Your task to perform on an android device: turn pop-ups off in chrome Image 0: 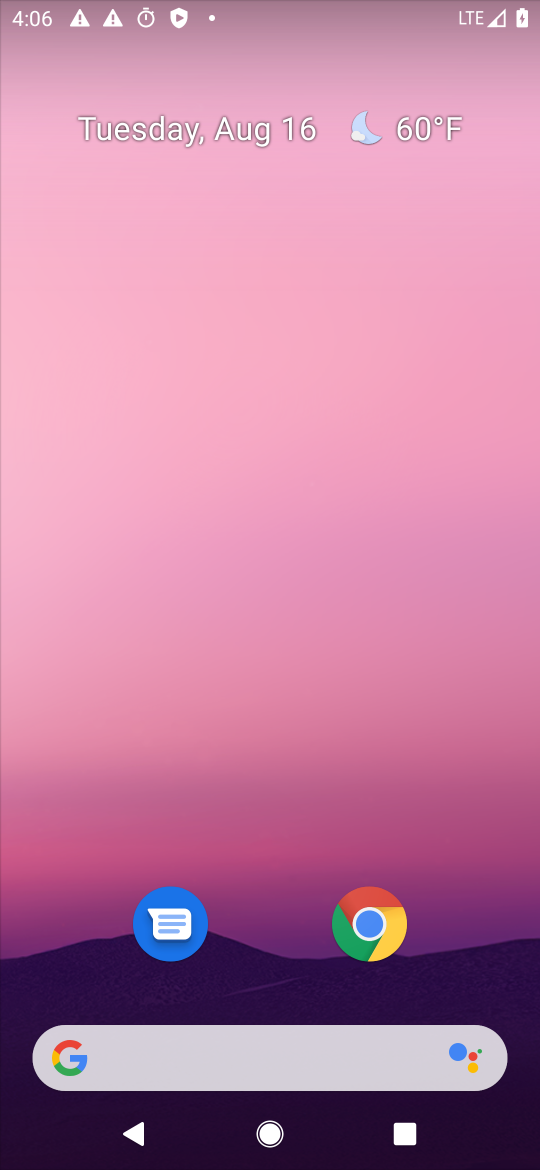
Step 0: click (379, 944)
Your task to perform on an android device: turn pop-ups off in chrome Image 1: 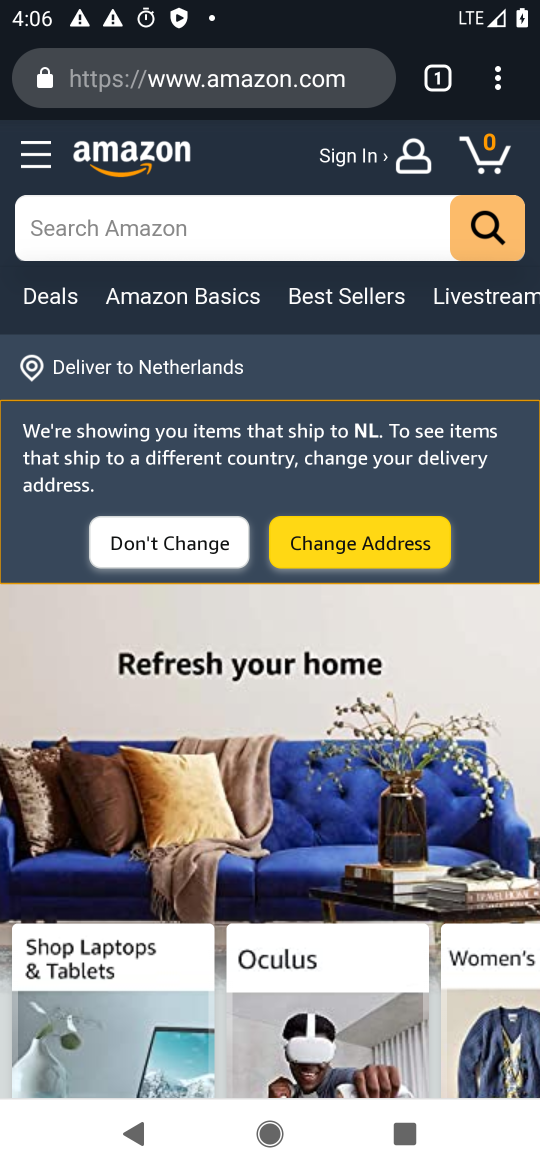
Step 1: click (514, 77)
Your task to perform on an android device: turn pop-ups off in chrome Image 2: 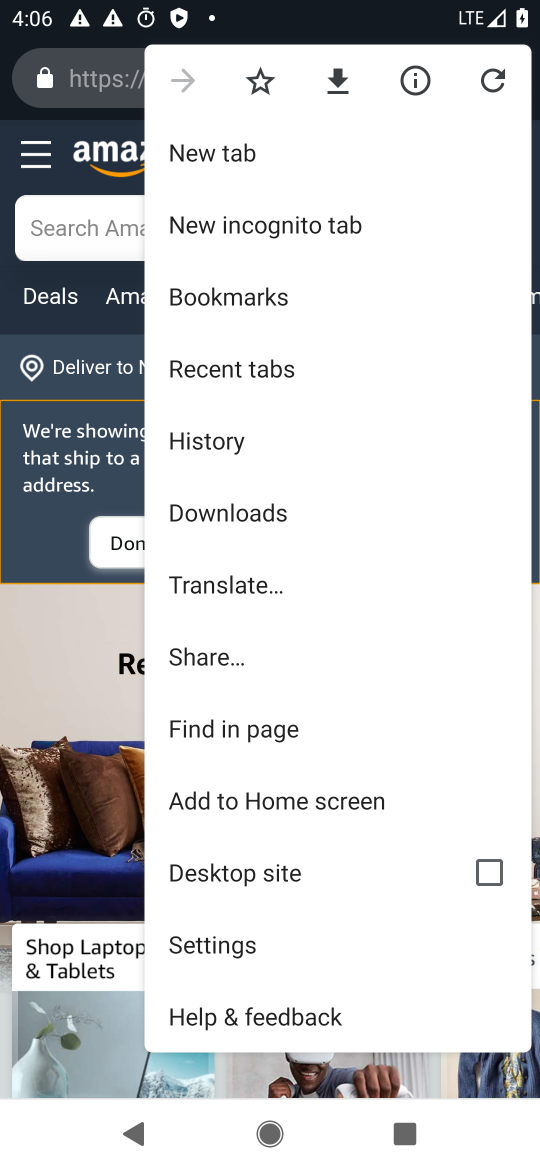
Step 2: click (276, 956)
Your task to perform on an android device: turn pop-ups off in chrome Image 3: 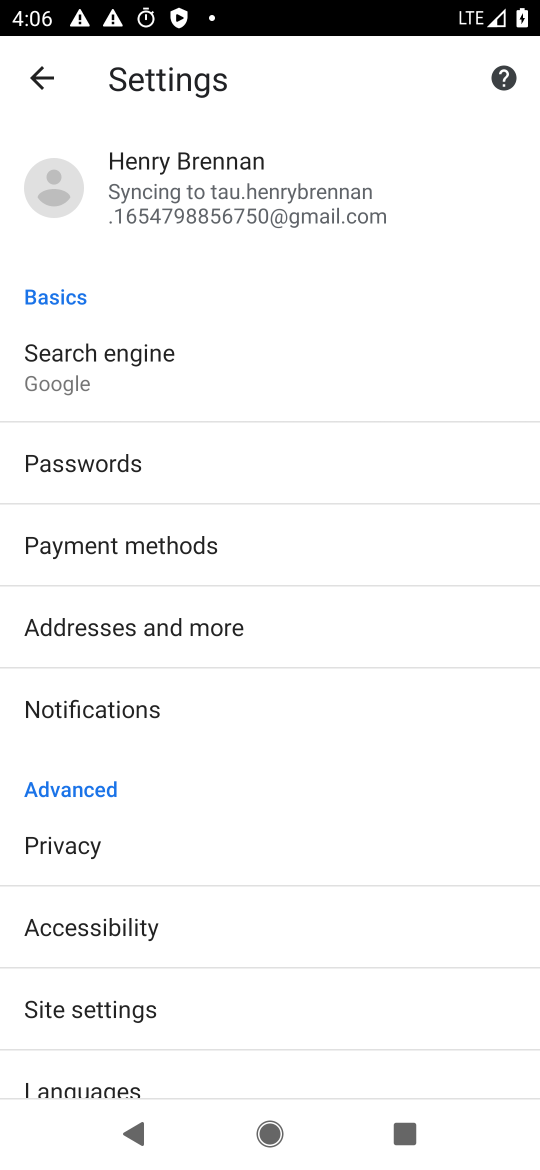
Step 3: click (134, 1022)
Your task to perform on an android device: turn pop-ups off in chrome Image 4: 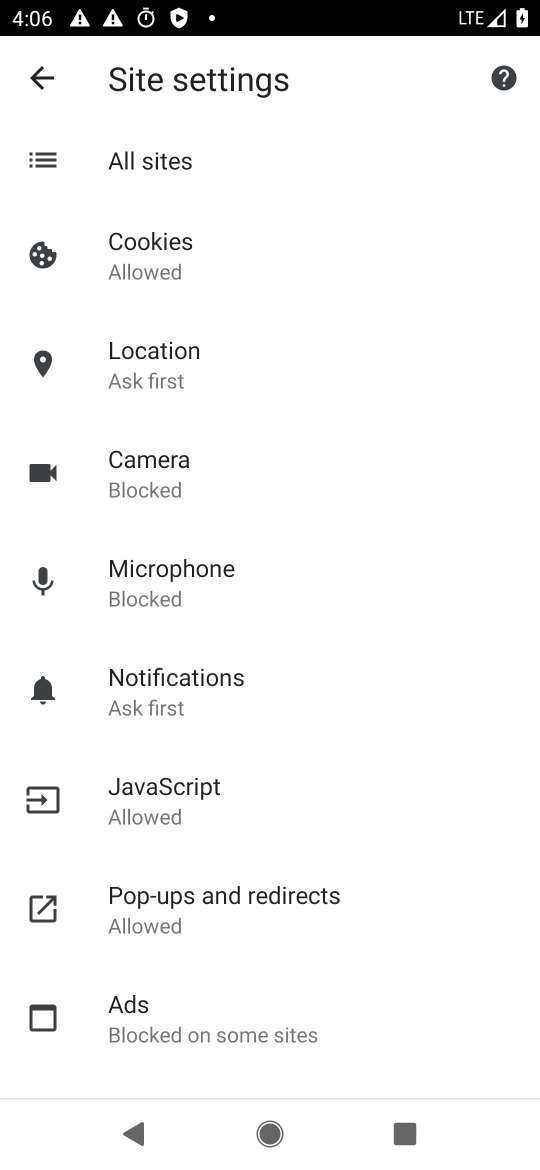
Step 4: click (269, 920)
Your task to perform on an android device: turn pop-ups off in chrome Image 5: 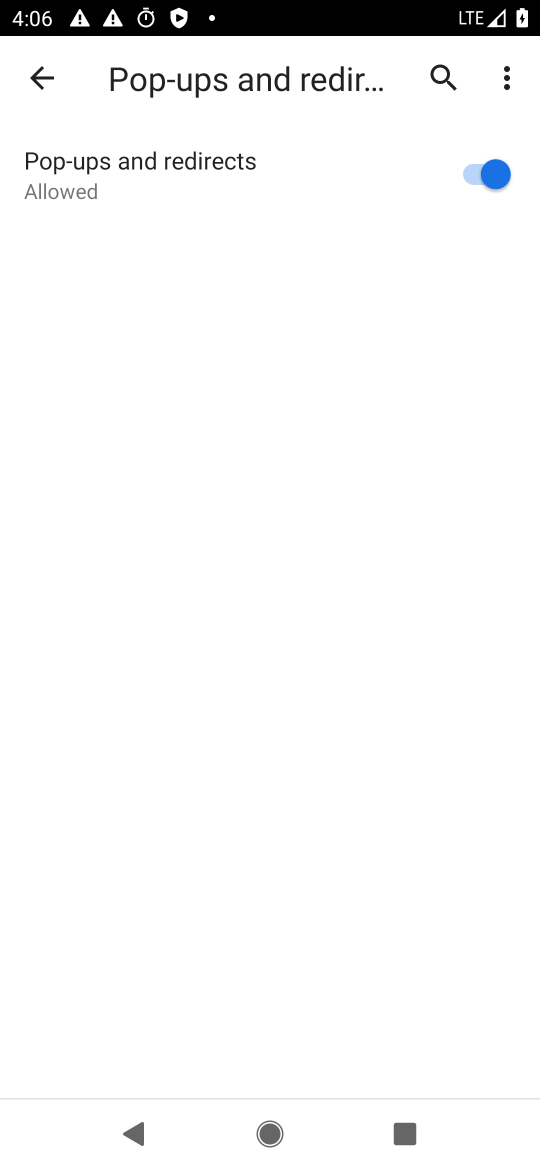
Step 5: click (481, 172)
Your task to perform on an android device: turn pop-ups off in chrome Image 6: 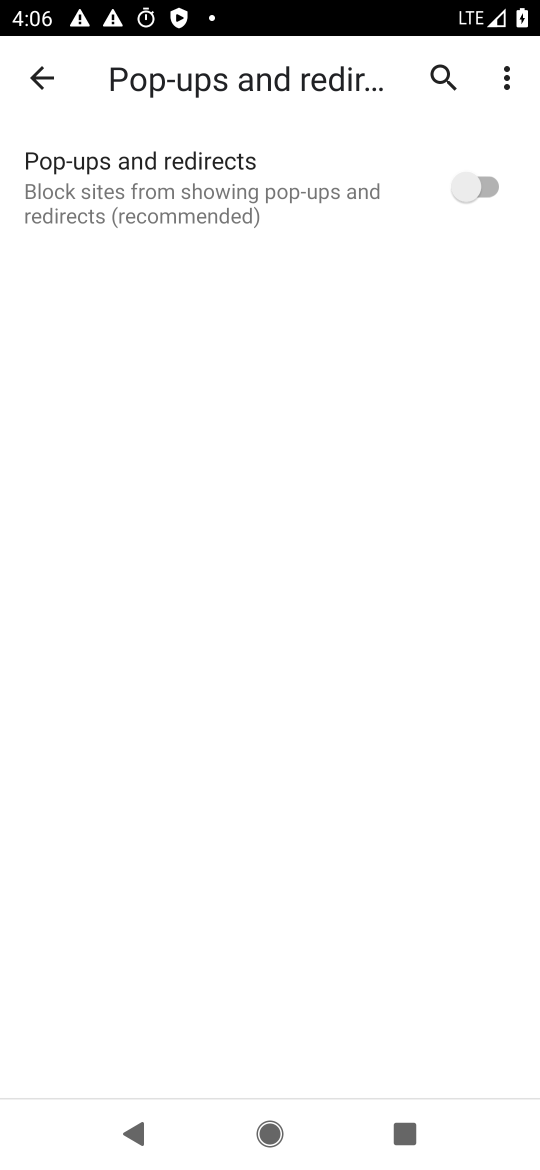
Step 6: task complete